Your task to perform on an android device: check storage Image 0: 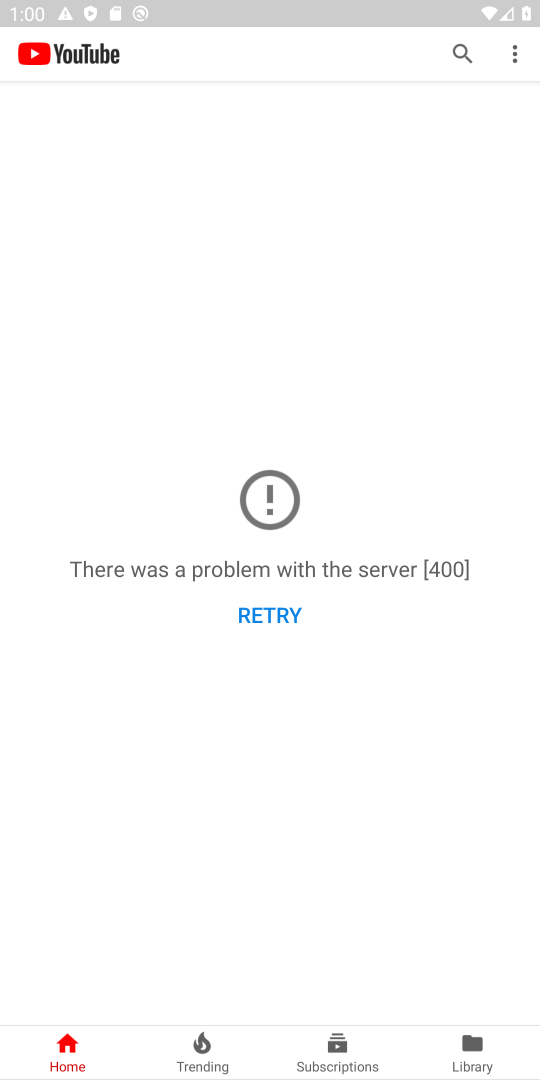
Step 0: press home button
Your task to perform on an android device: check storage Image 1: 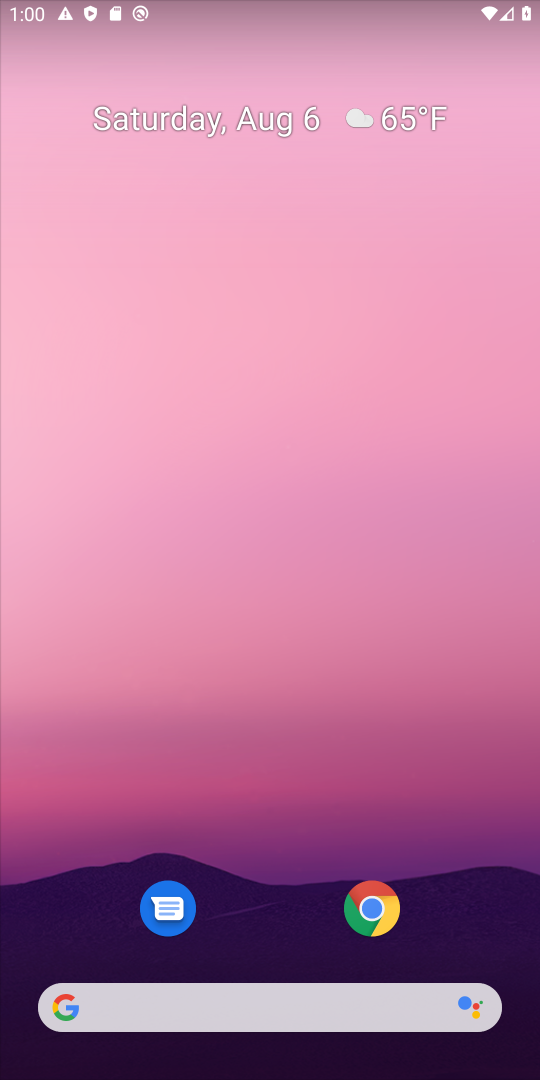
Step 1: drag from (291, 744) to (269, 169)
Your task to perform on an android device: check storage Image 2: 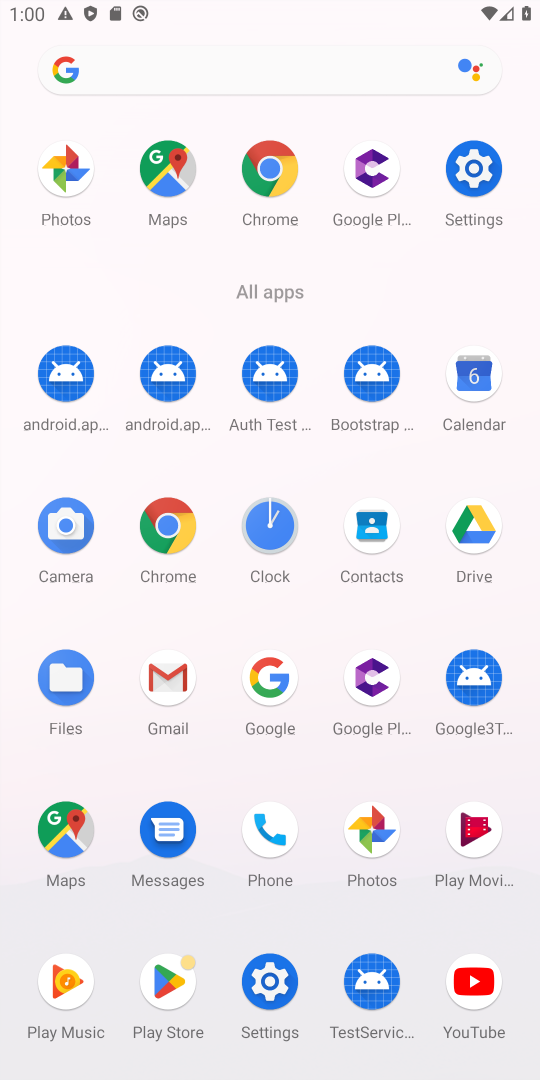
Step 2: click (277, 982)
Your task to perform on an android device: check storage Image 3: 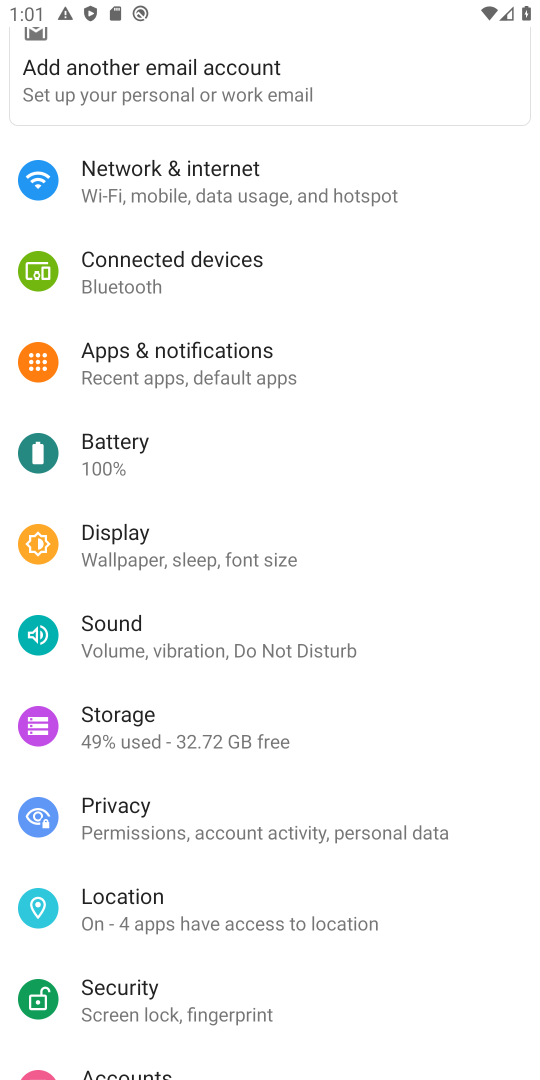
Step 3: click (163, 735)
Your task to perform on an android device: check storage Image 4: 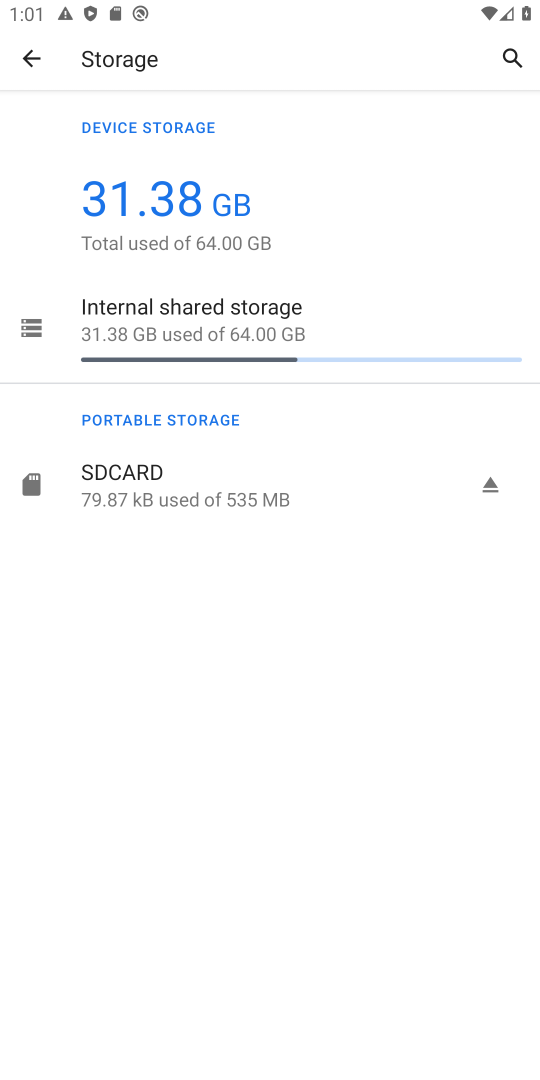
Step 4: task complete